Your task to perform on an android device: open app "PUBG MOBILE" Image 0: 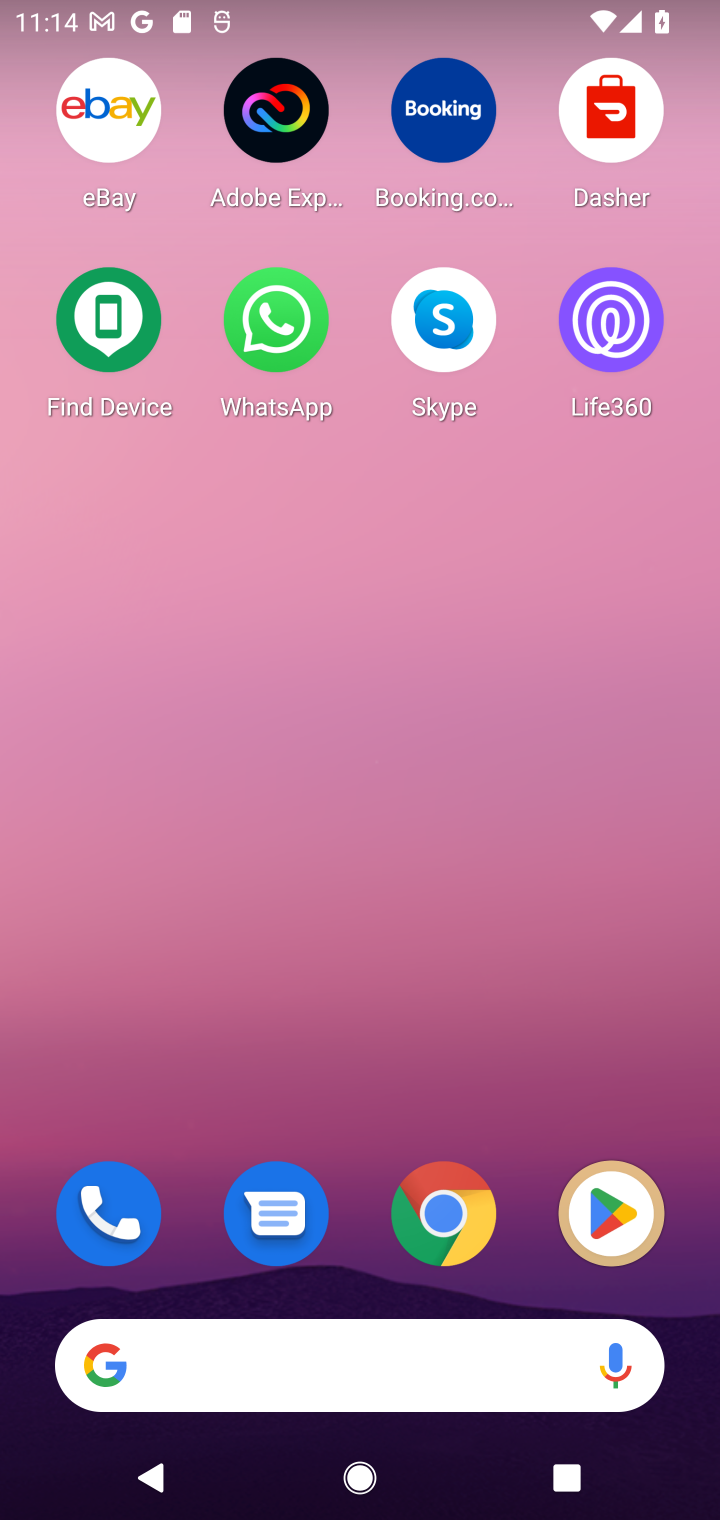
Step 0: drag from (269, 1345) to (429, 159)
Your task to perform on an android device: open app "PUBG MOBILE" Image 1: 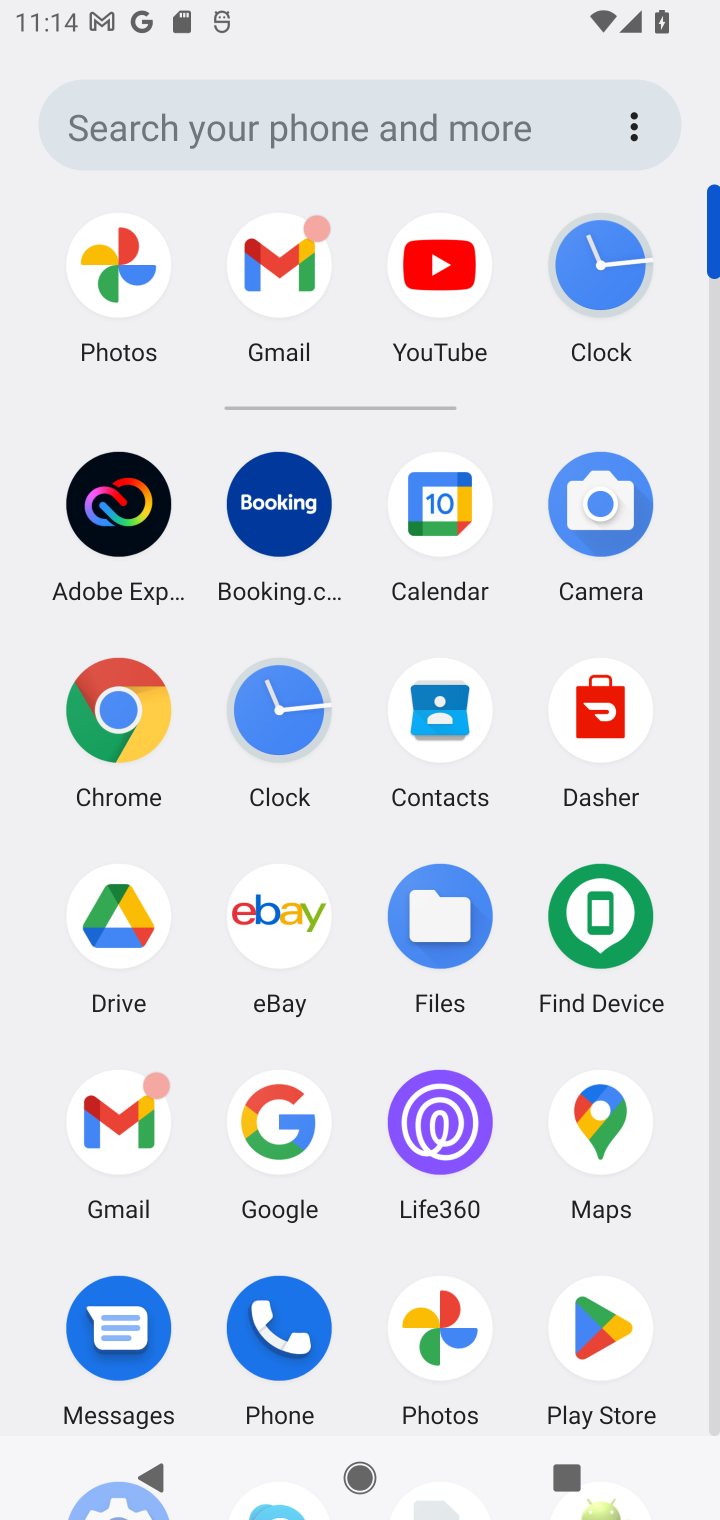
Step 1: click (609, 1323)
Your task to perform on an android device: open app "PUBG MOBILE" Image 2: 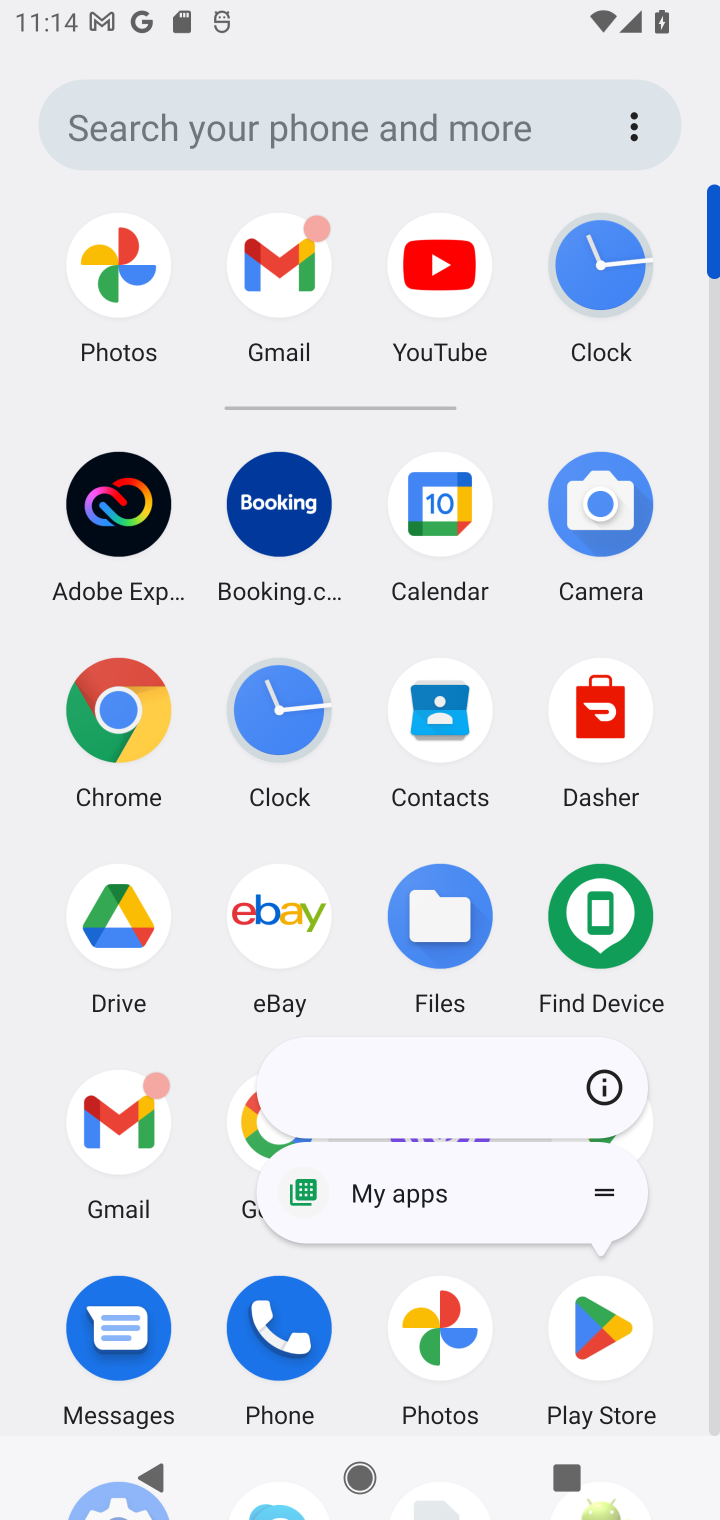
Step 2: click (609, 1323)
Your task to perform on an android device: open app "PUBG MOBILE" Image 3: 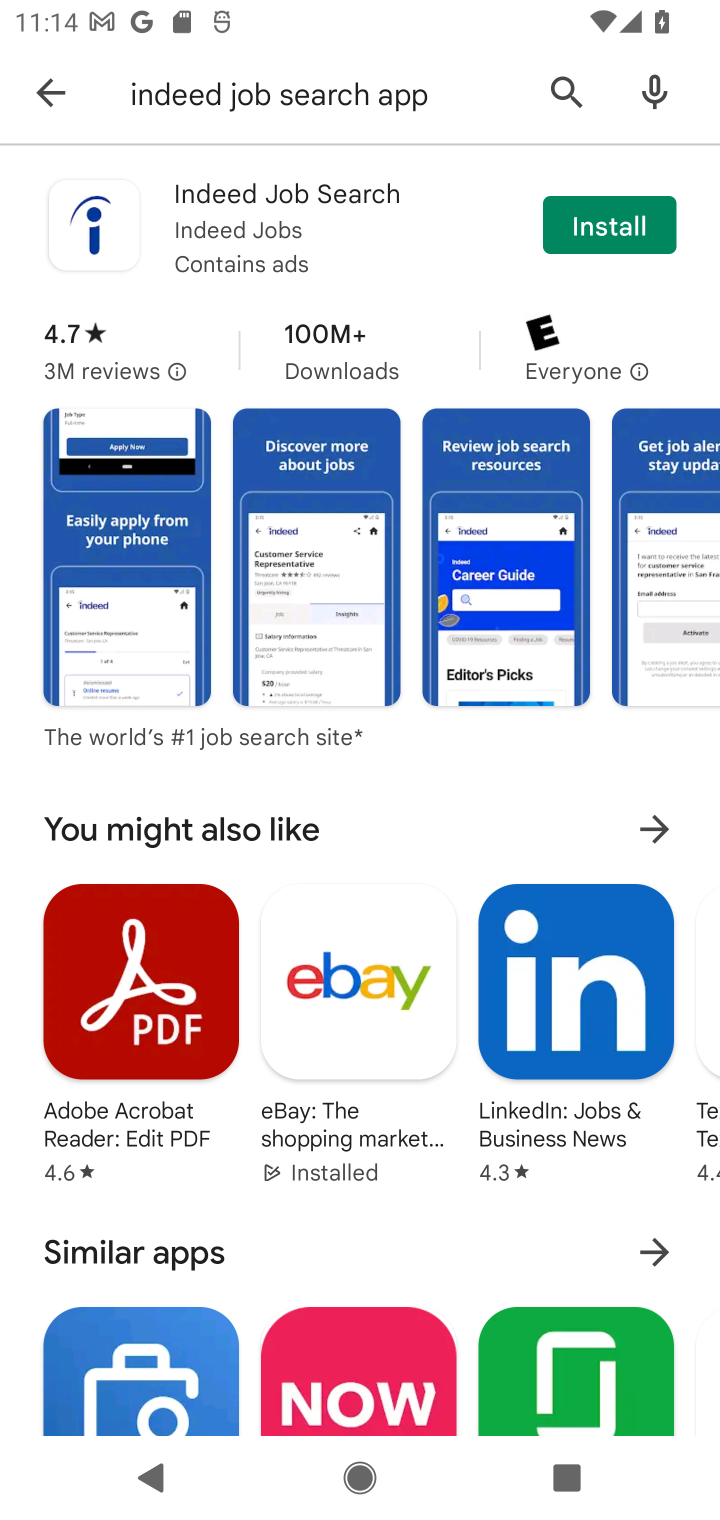
Step 3: press back button
Your task to perform on an android device: open app "PUBG MOBILE" Image 4: 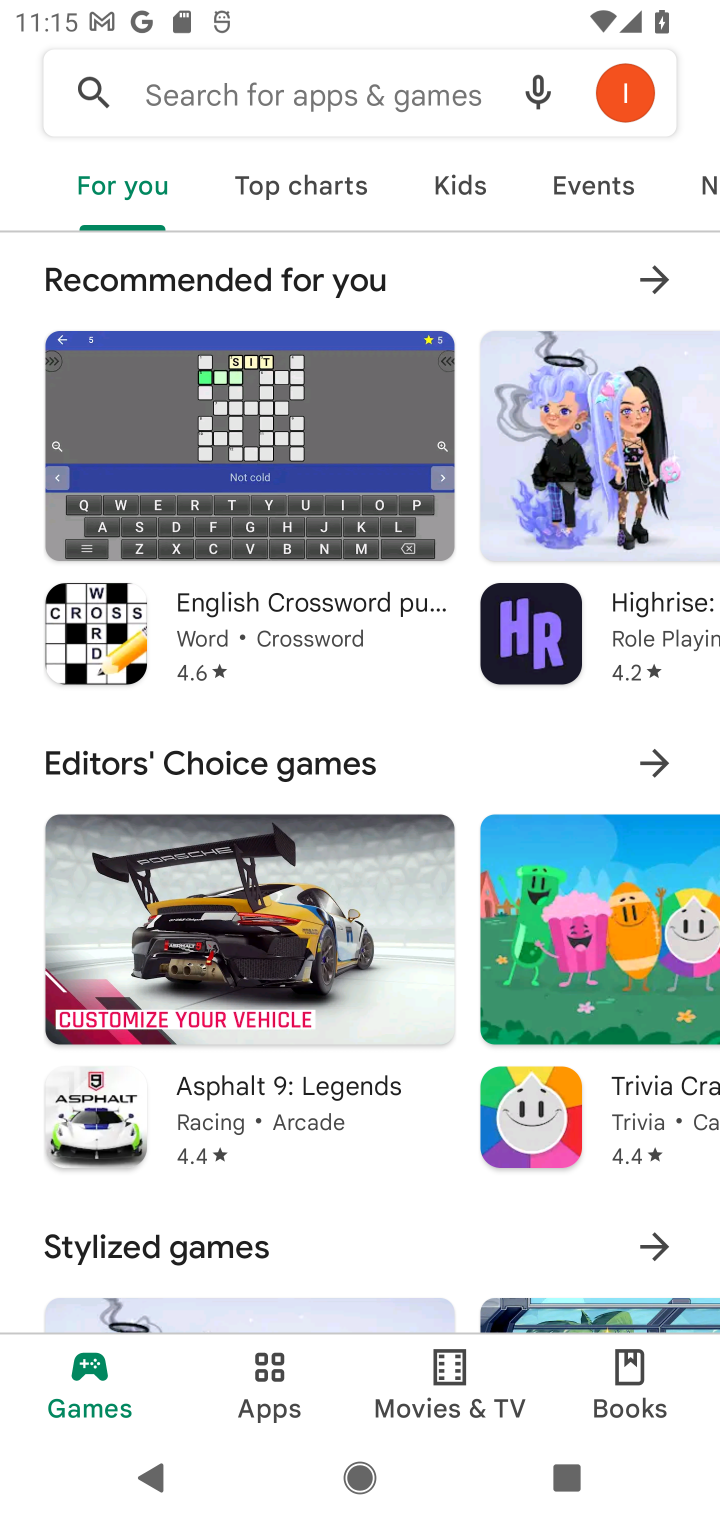
Step 4: click (352, 67)
Your task to perform on an android device: open app "PUBG MOBILE" Image 5: 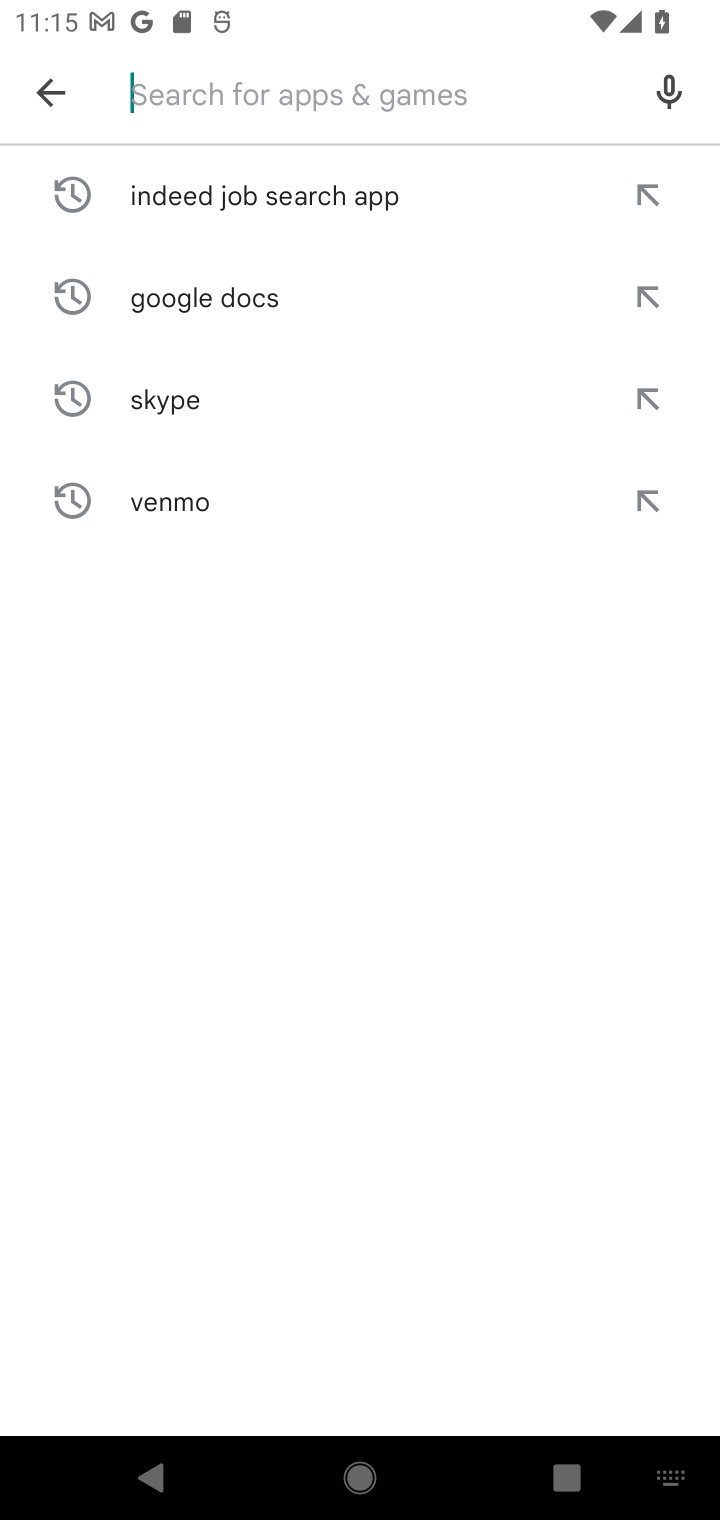
Step 5: click (235, 92)
Your task to perform on an android device: open app "PUBG MOBILE" Image 6: 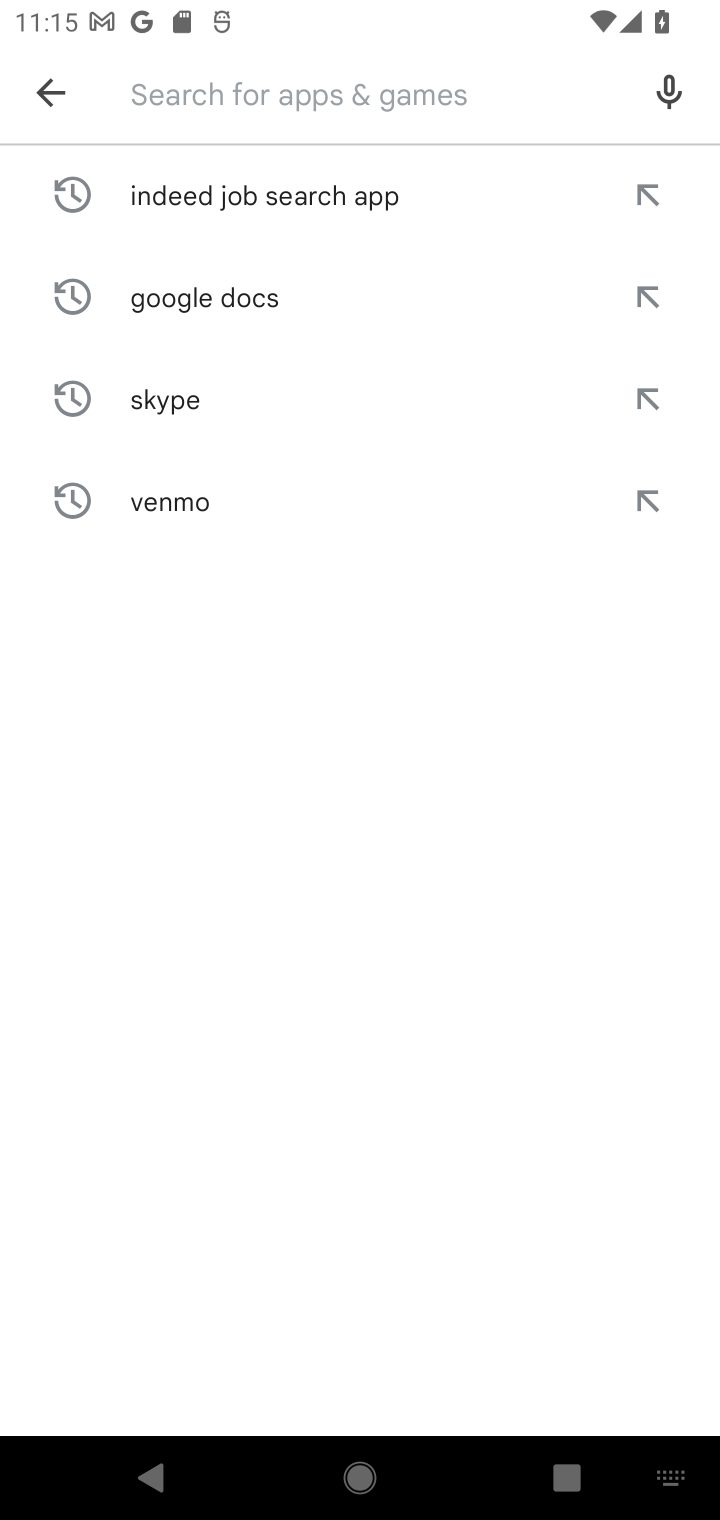
Step 6: type "PUBG MOBILE"
Your task to perform on an android device: open app "PUBG MOBILE" Image 7: 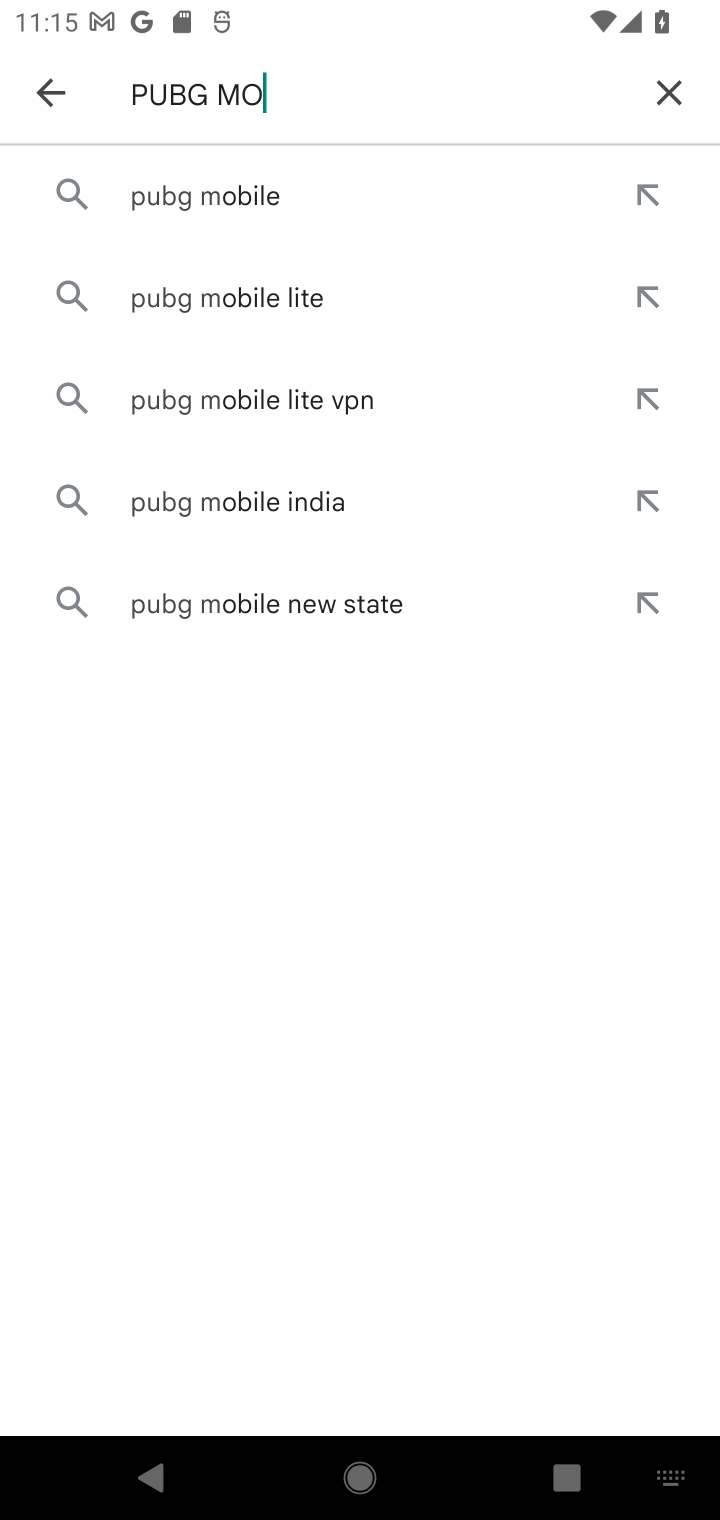
Step 7: type ""
Your task to perform on an android device: open app "PUBG MOBILE" Image 8: 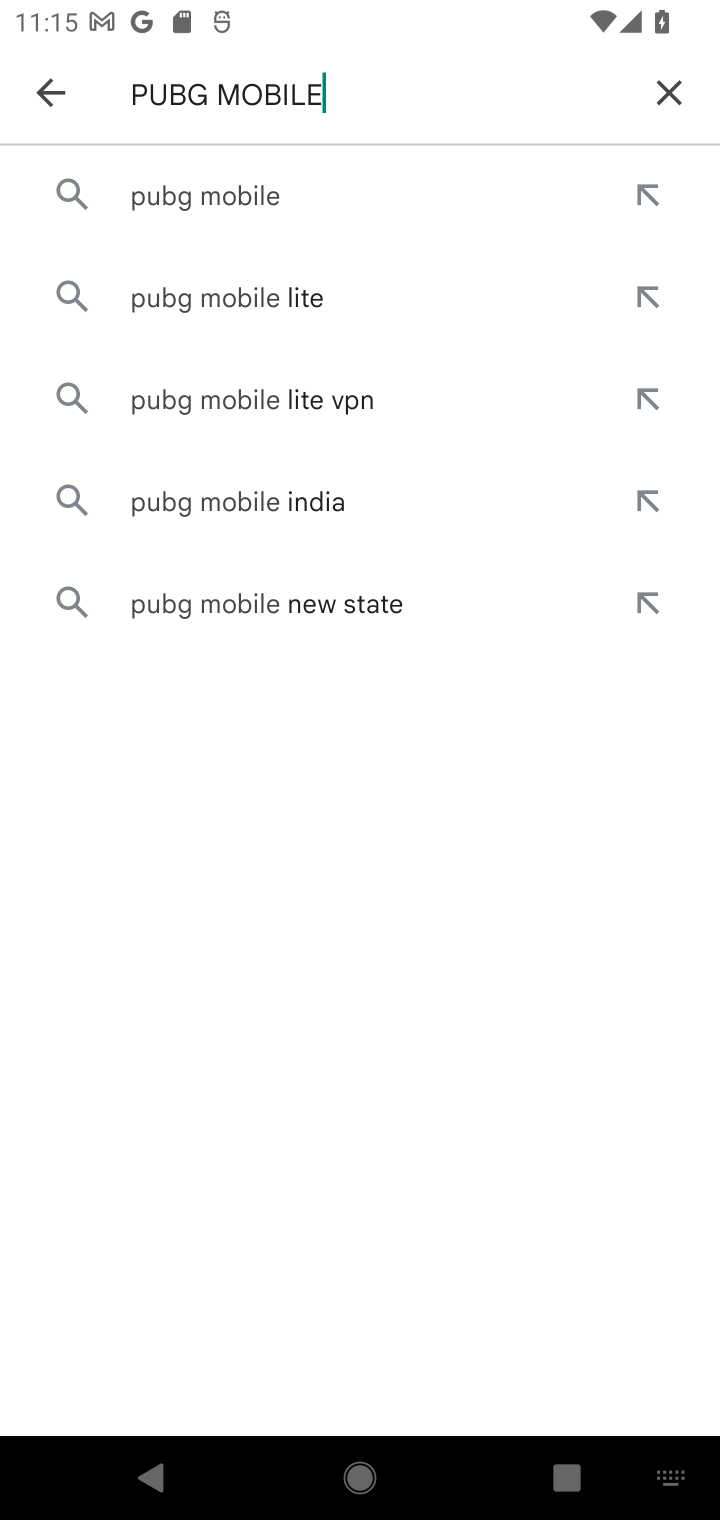
Step 8: click (243, 199)
Your task to perform on an android device: open app "PUBG MOBILE" Image 9: 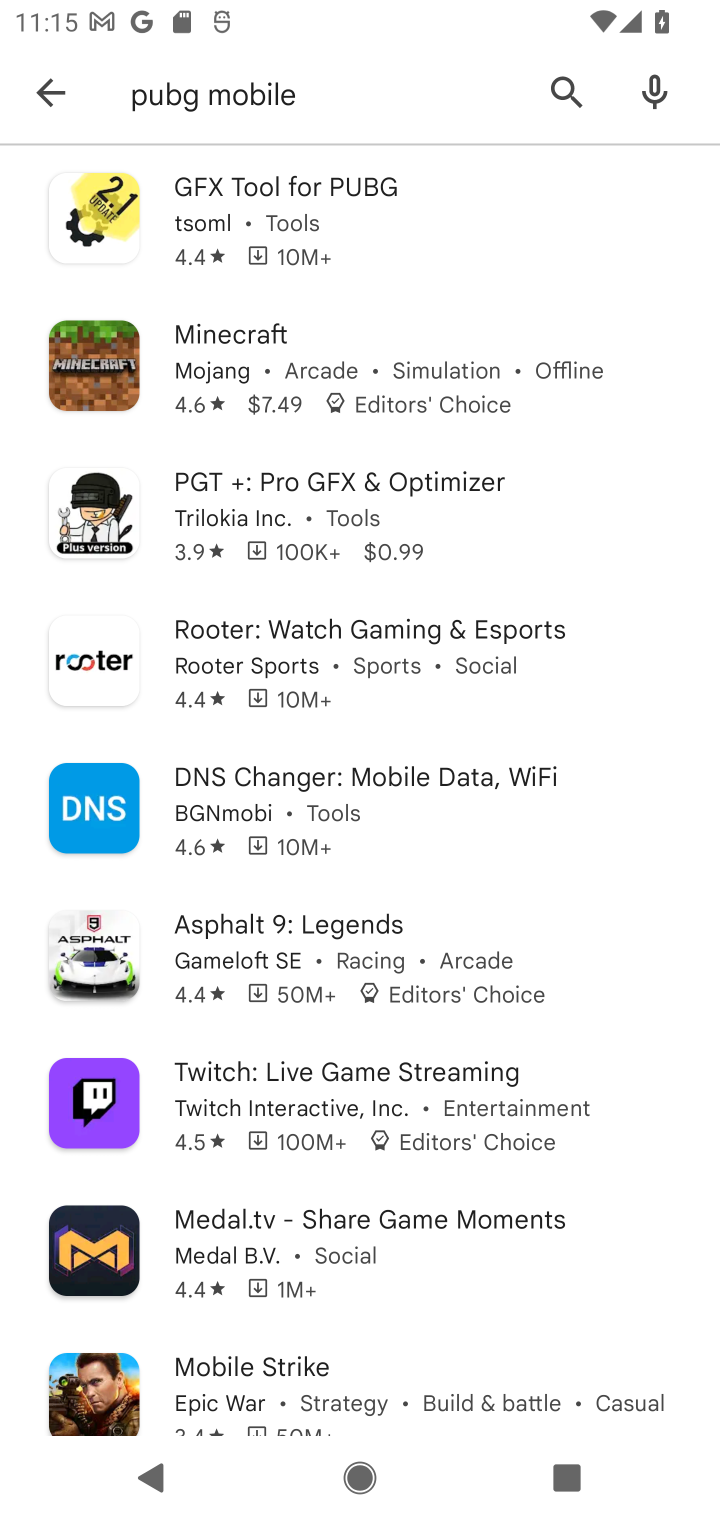
Step 9: drag from (405, 1024) to (444, 801)
Your task to perform on an android device: open app "PUBG MOBILE" Image 10: 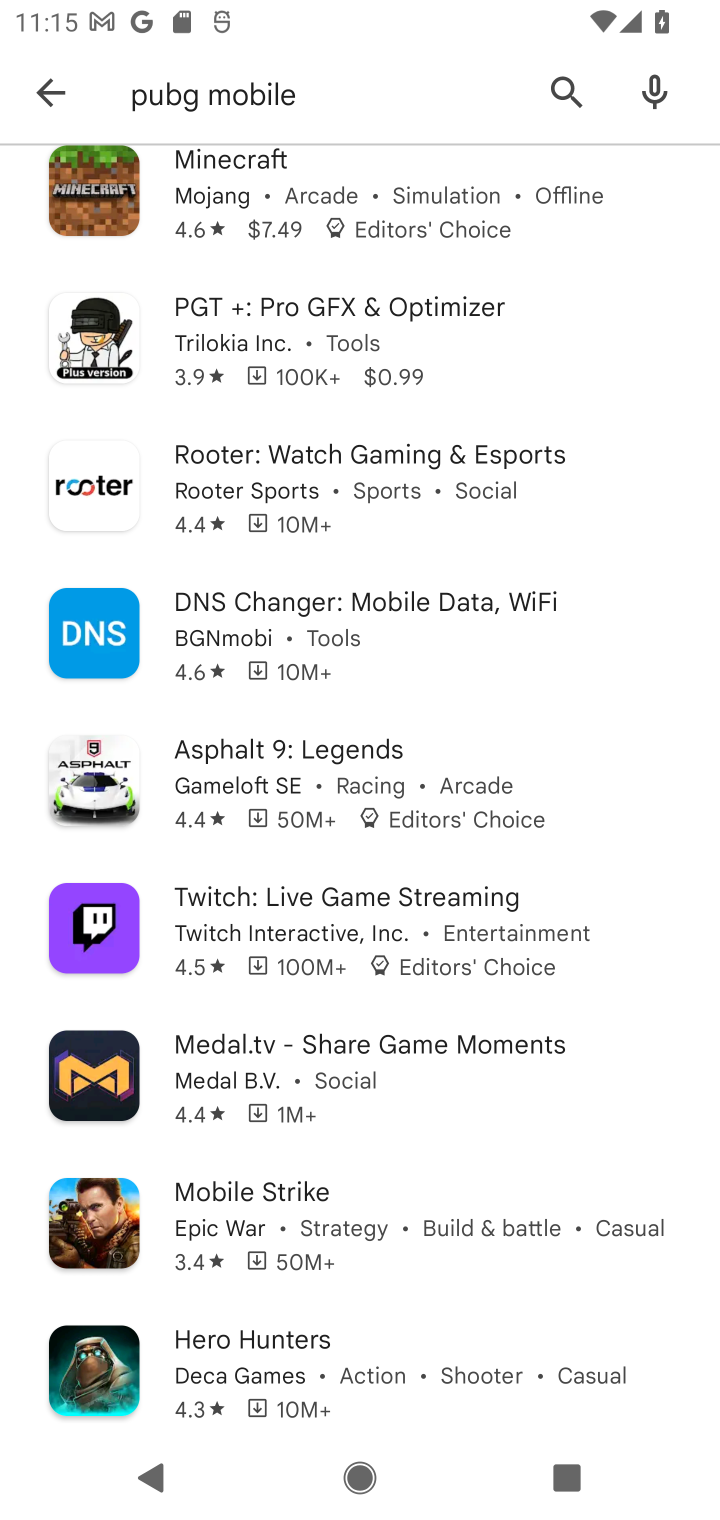
Step 10: drag from (437, 865) to (527, 719)
Your task to perform on an android device: open app "PUBG MOBILE" Image 11: 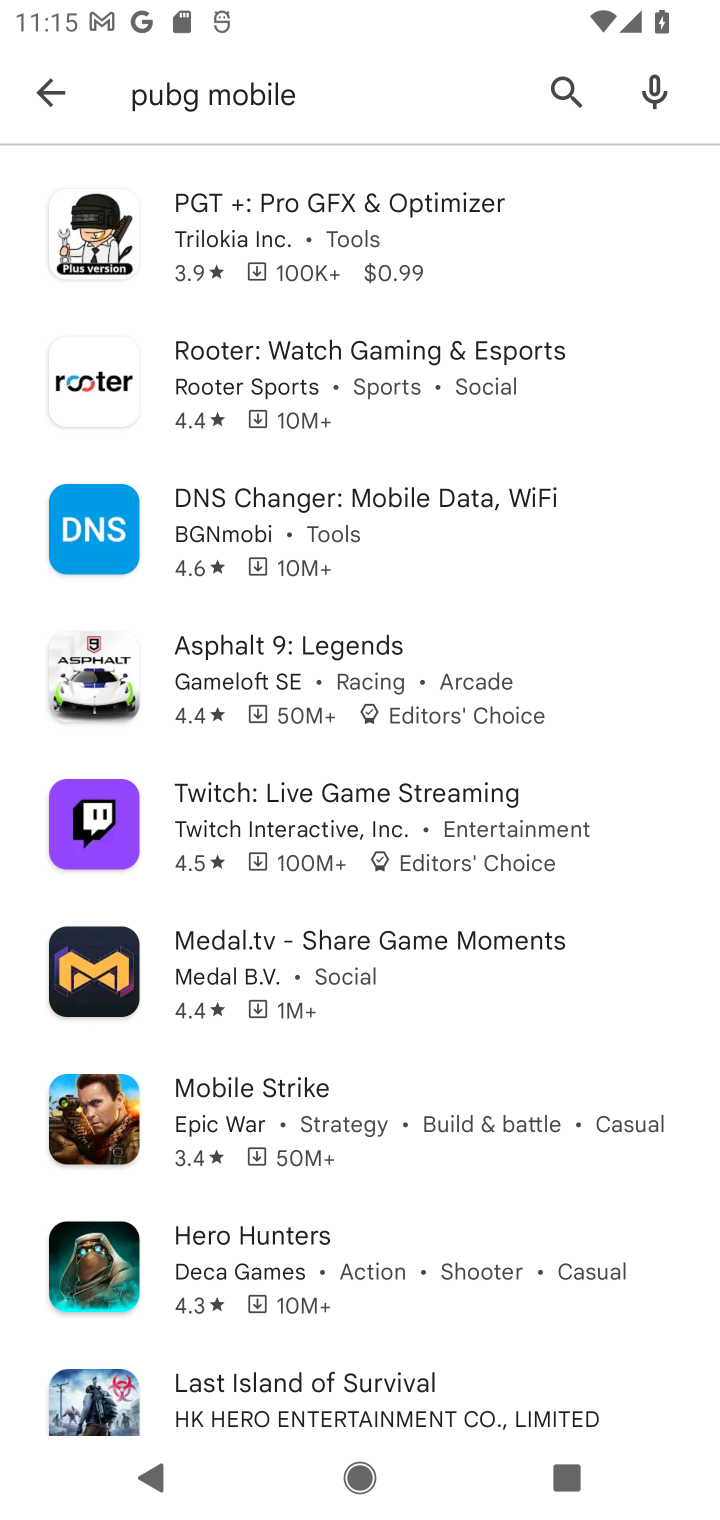
Step 11: drag from (367, 1127) to (486, 913)
Your task to perform on an android device: open app "PUBG MOBILE" Image 12: 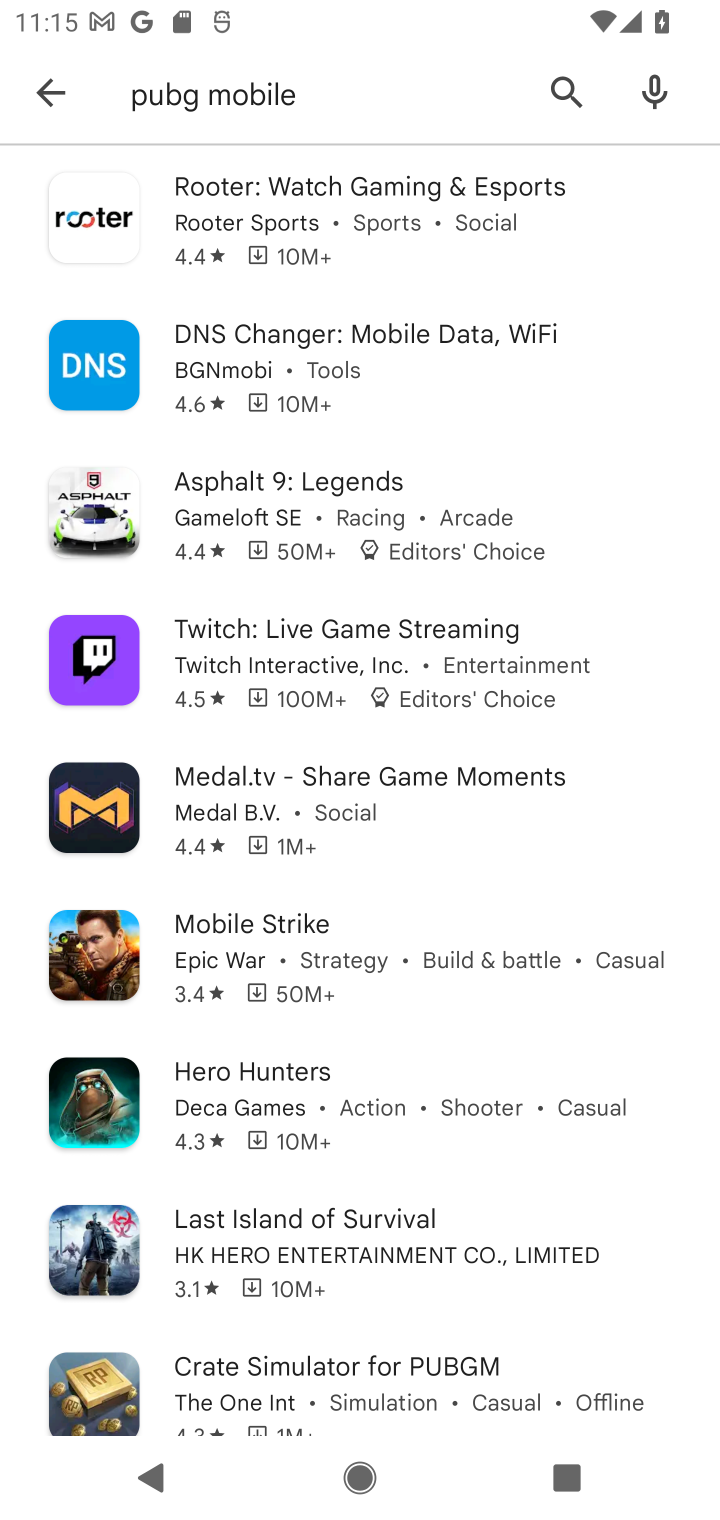
Step 12: drag from (345, 1180) to (472, 995)
Your task to perform on an android device: open app "PUBG MOBILE" Image 13: 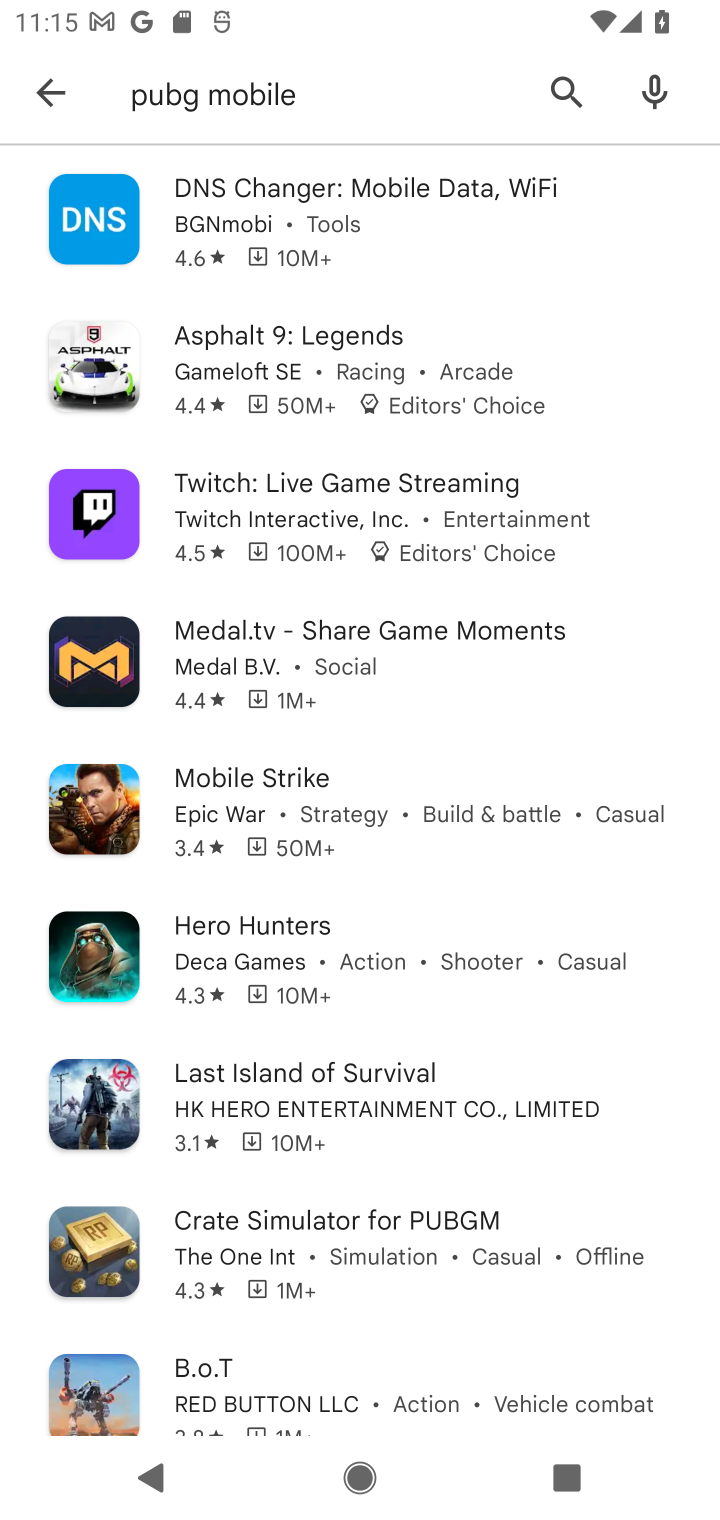
Step 13: drag from (303, 1278) to (432, 1050)
Your task to perform on an android device: open app "PUBG MOBILE" Image 14: 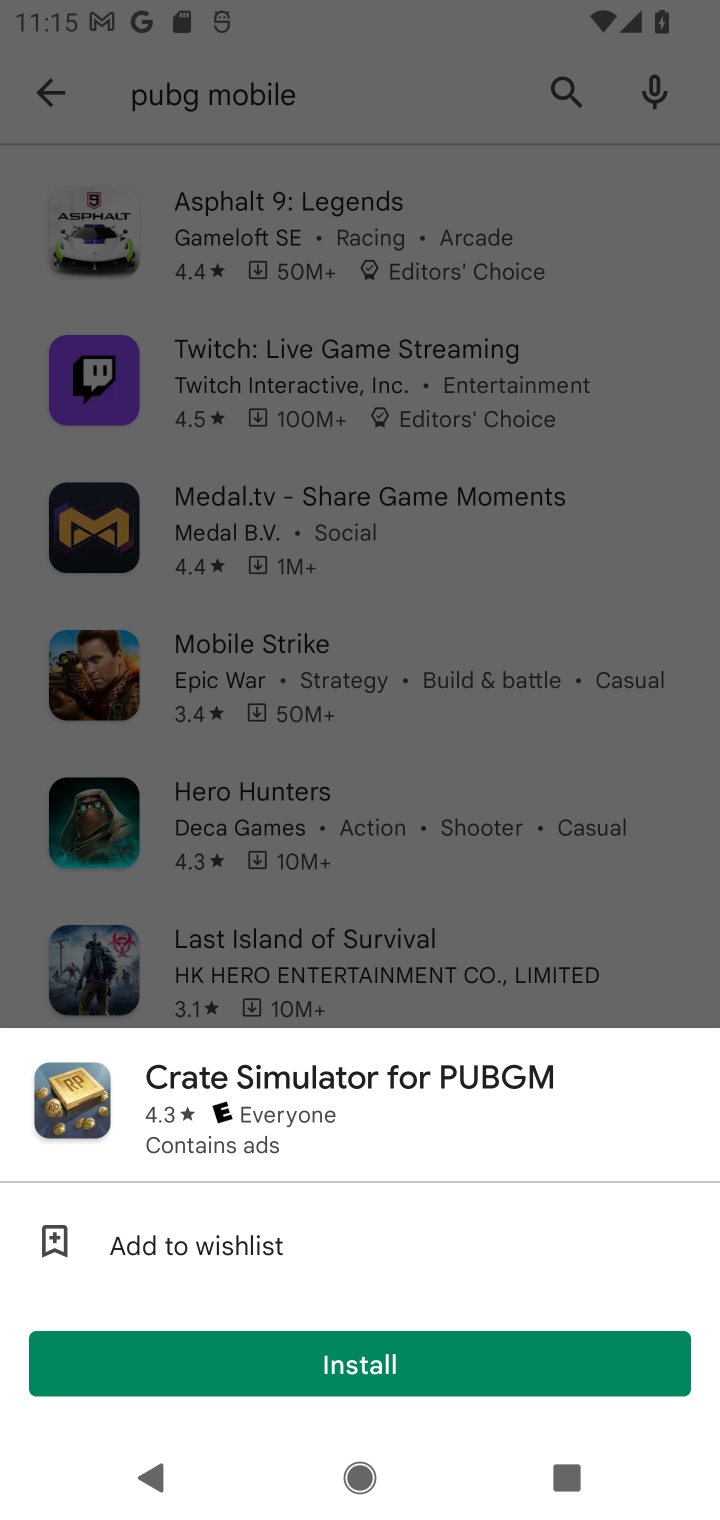
Step 14: click (337, 928)
Your task to perform on an android device: open app "PUBG MOBILE" Image 15: 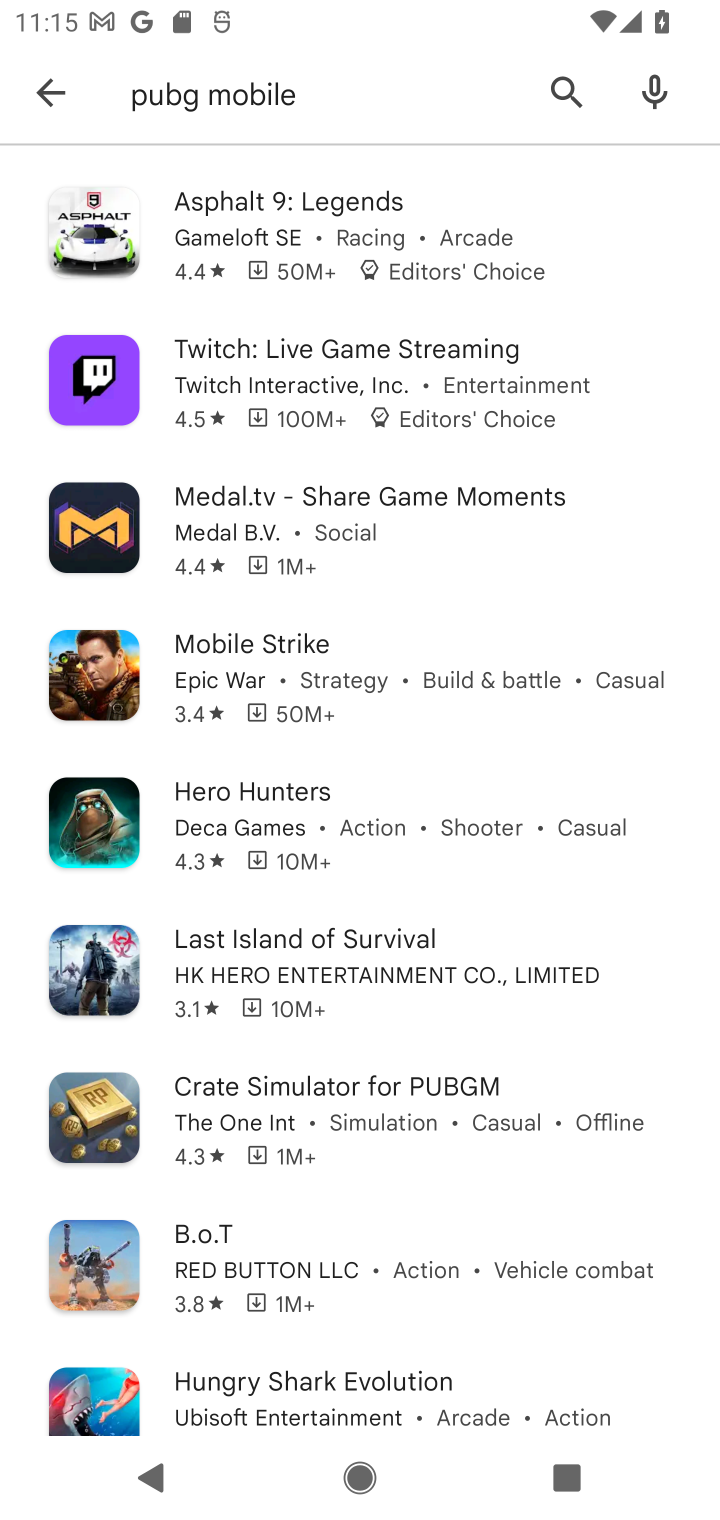
Step 15: drag from (246, 1184) to (381, 995)
Your task to perform on an android device: open app "PUBG MOBILE" Image 16: 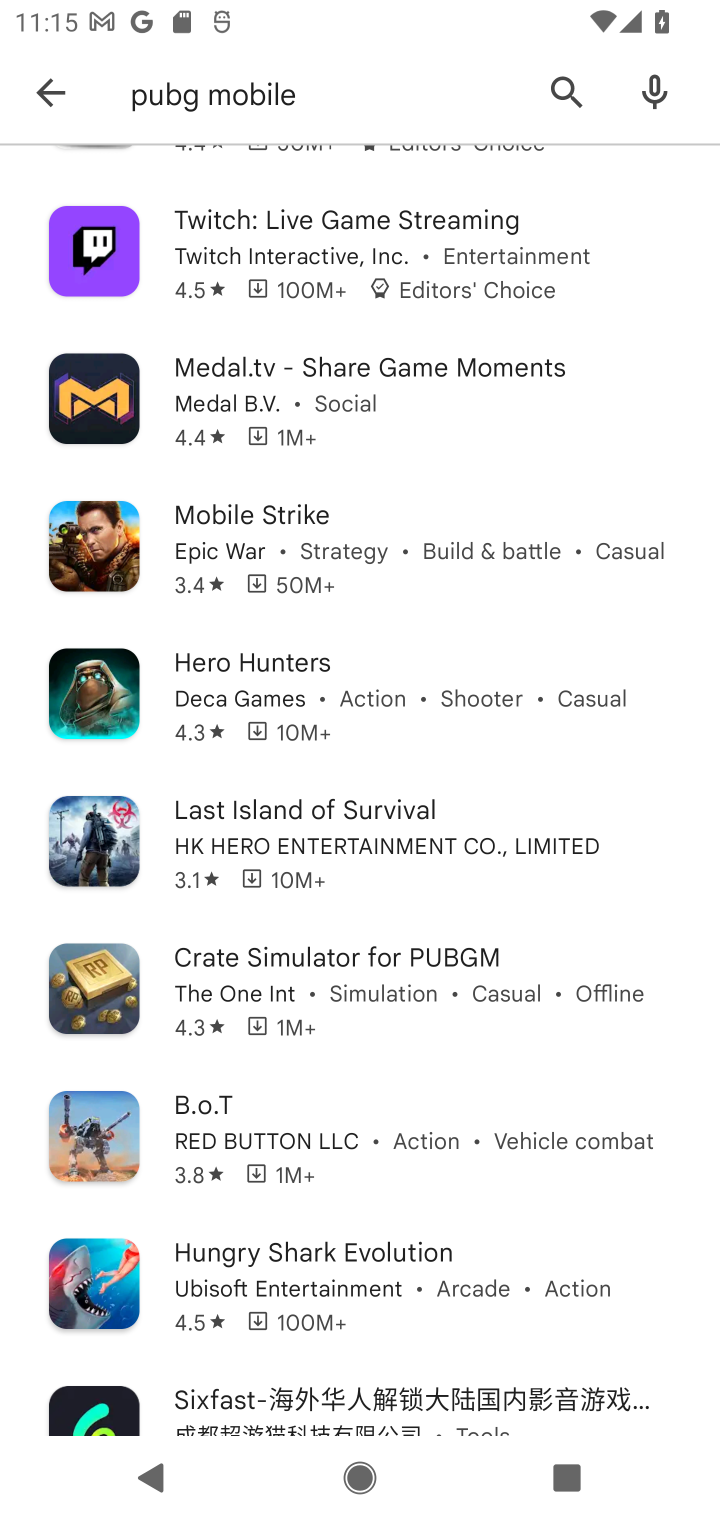
Step 16: drag from (264, 1207) to (469, 961)
Your task to perform on an android device: open app "PUBG MOBILE" Image 17: 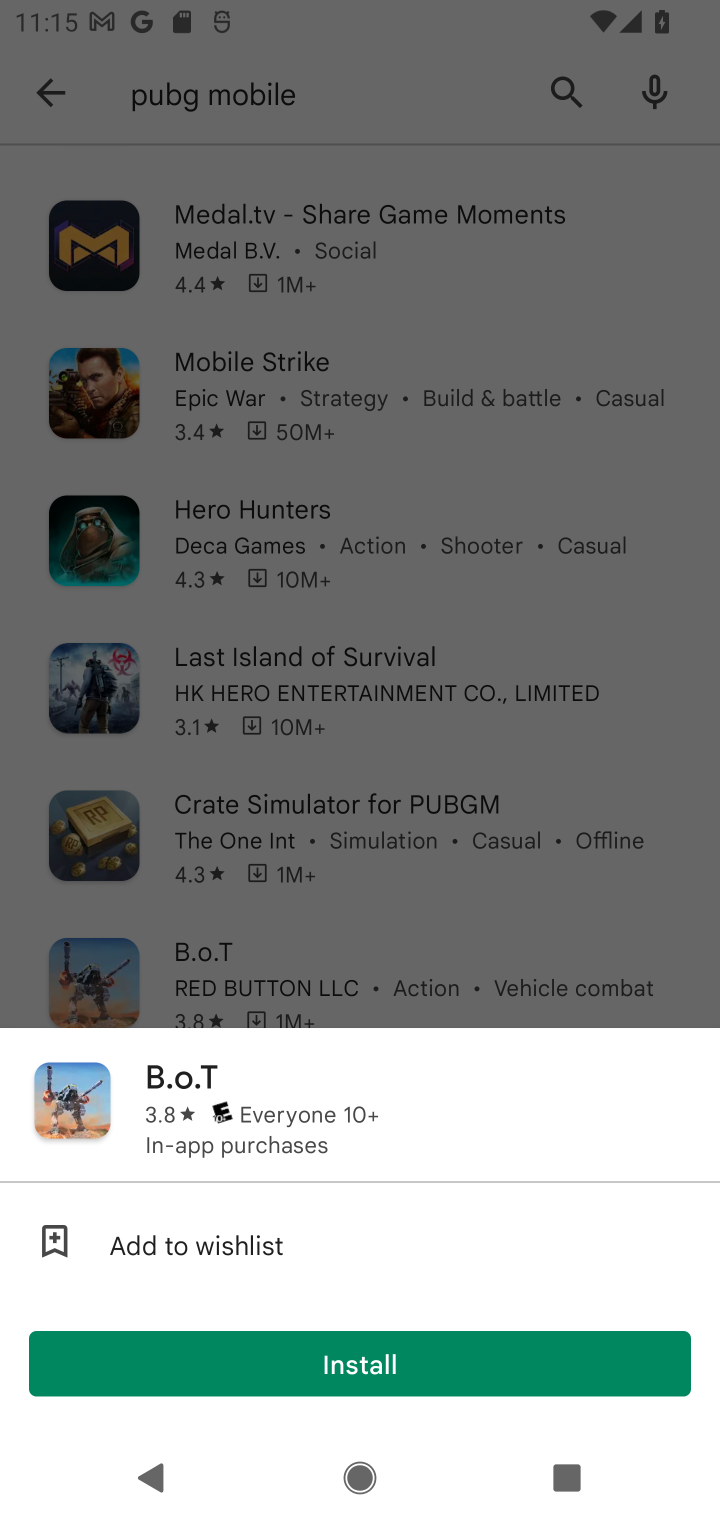
Step 17: click (400, 907)
Your task to perform on an android device: open app "PUBG MOBILE" Image 18: 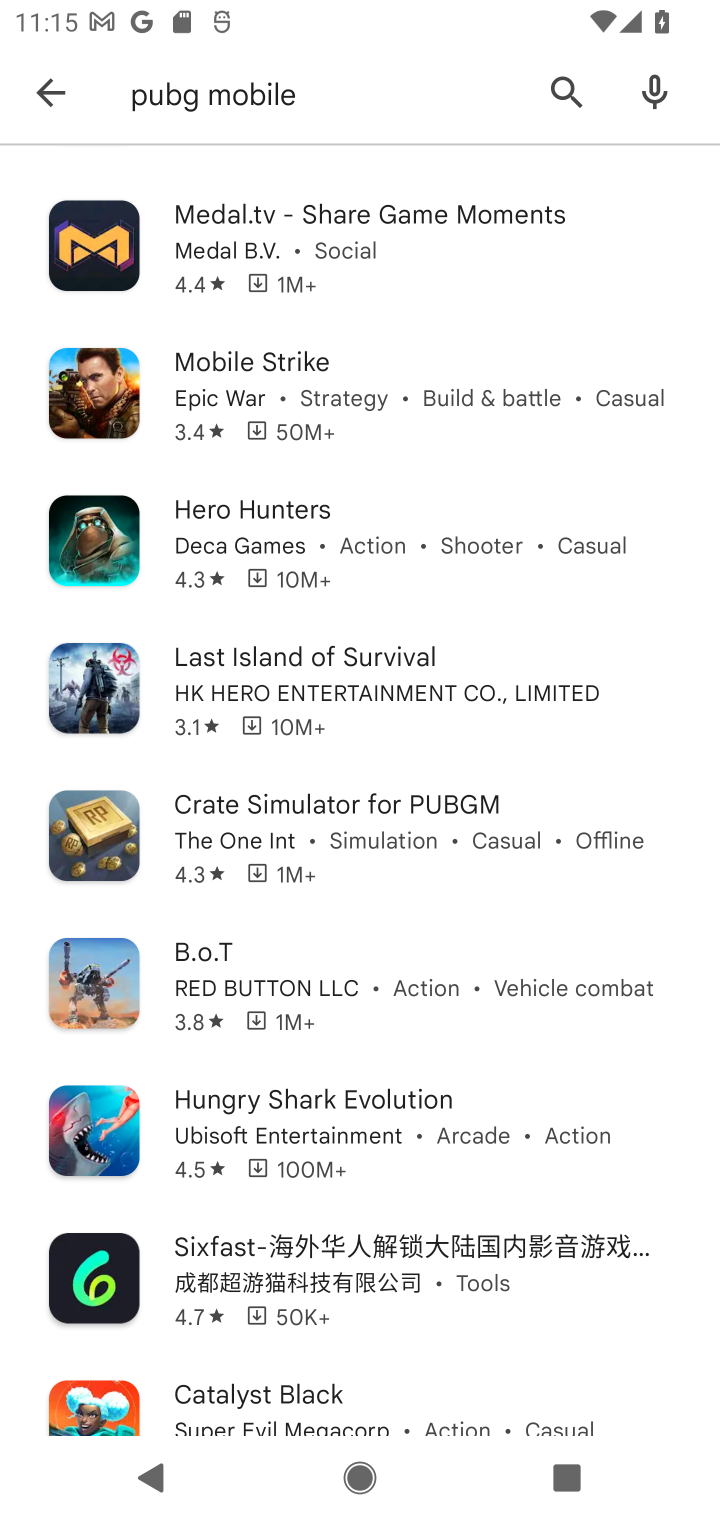
Step 18: task complete